Your task to perform on an android device: Open notification settings Image 0: 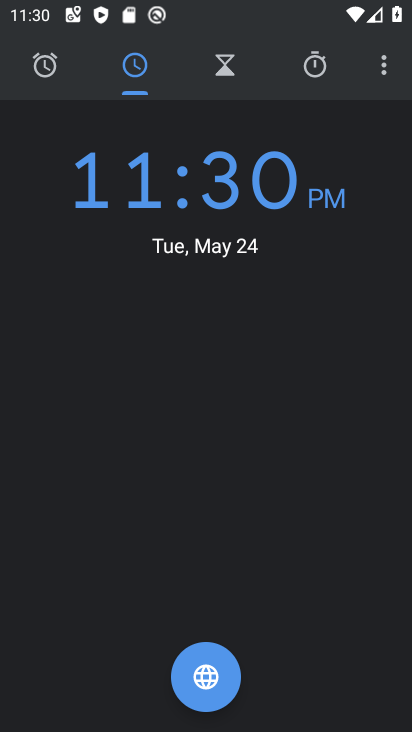
Step 0: press home button
Your task to perform on an android device: Open notification settings Image 1: 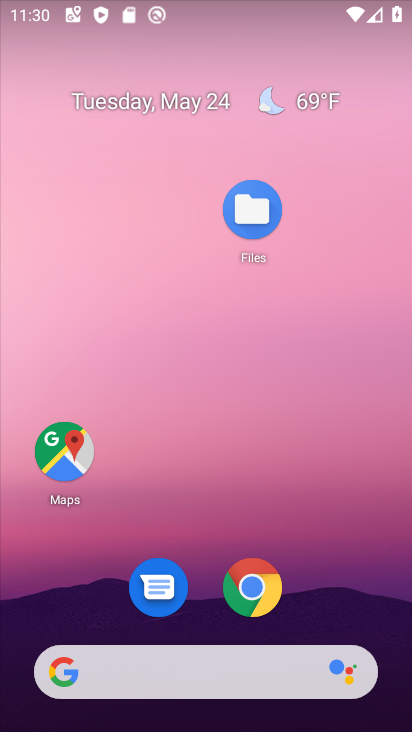
Step 1: drag from (314, 607) to (64, 254)
Your task to perform on an android device: Open notification settings Image 2: 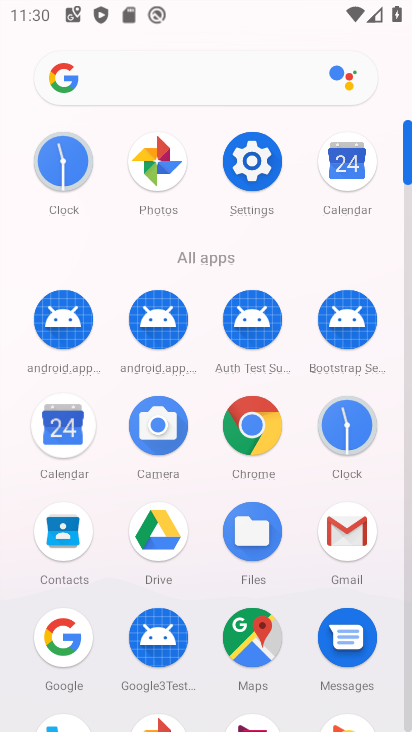
Step 2: click (255, 180)
Your task to perform on an android device: Open notification settings Image 3: 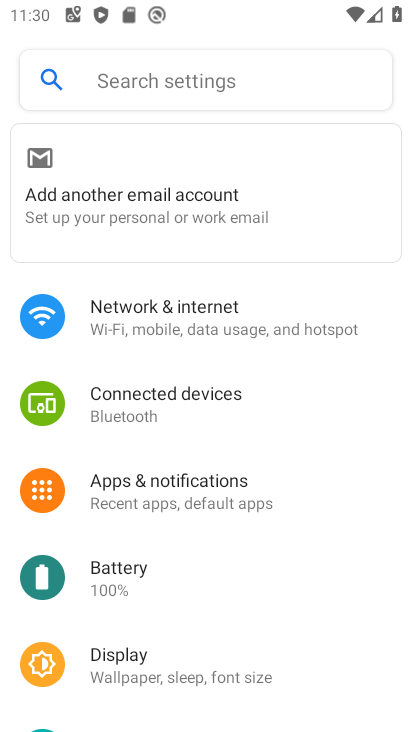
Step 3: click (159, 490)
Your task to perform on an android device: Open notification settings Image 4: 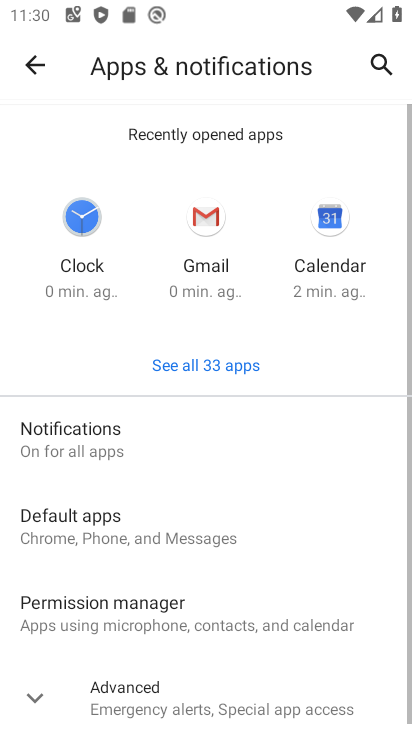
Step 4: click (101, 436)
Your task to perform on an android device: Open notification settings Image 5: 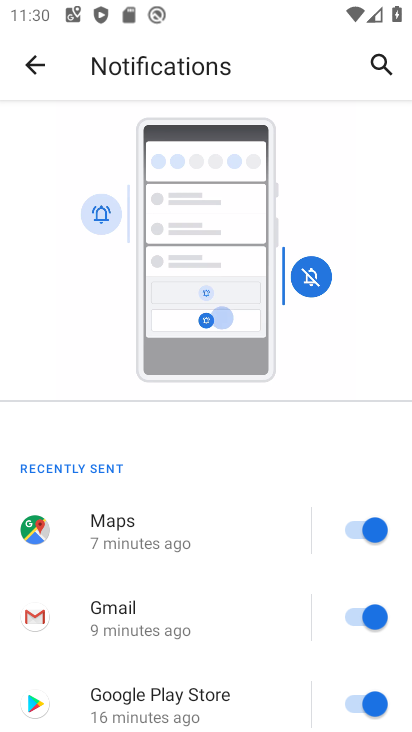
Step 5: drag from (192, 657) to (132, 100)
Your task to perform on an android device: Open notification settings Image 6: 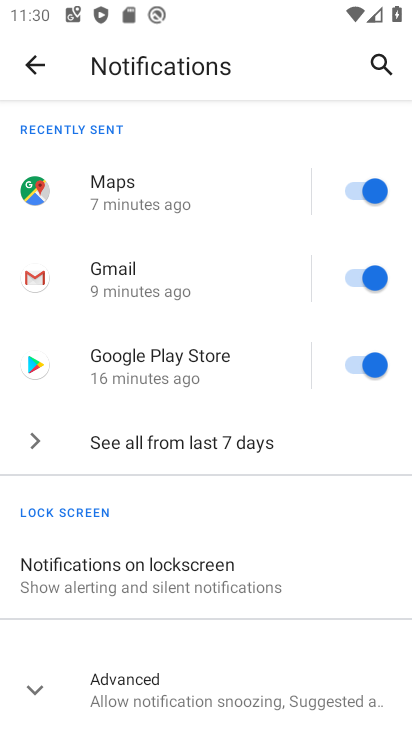
Step 6: click (122, 692)
Your task to perform on an android device: Open notification settings Image 7: 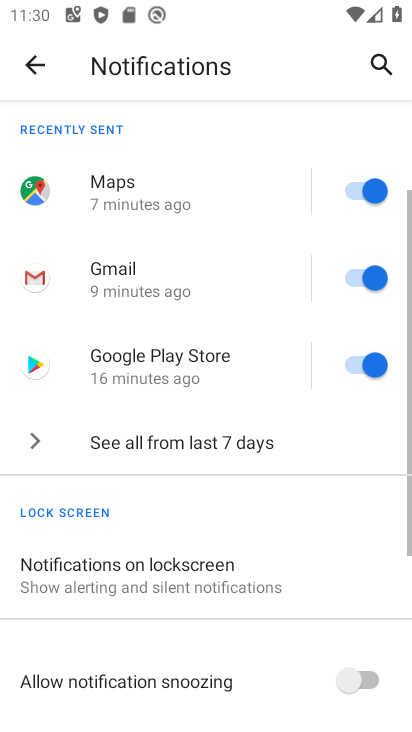
Step 7: task complete